Your task to perform on an android device: Open calendar and show me the third week of next month Image 0: 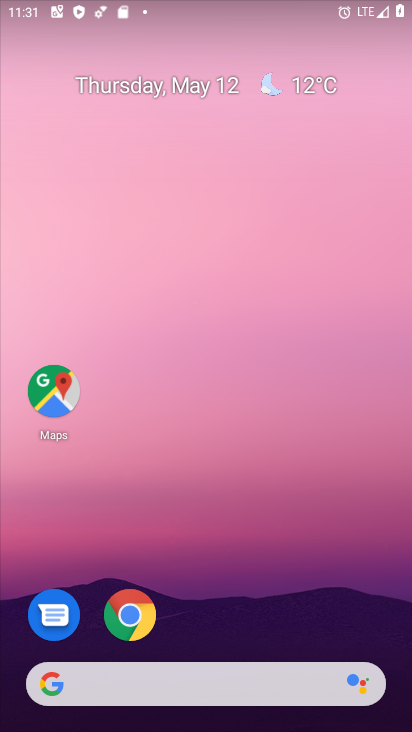
Step 0: drag from (192, 532) to (192, 101)
Your task to perform on an android device: Open calendar and show me the third week of next month Image 1: 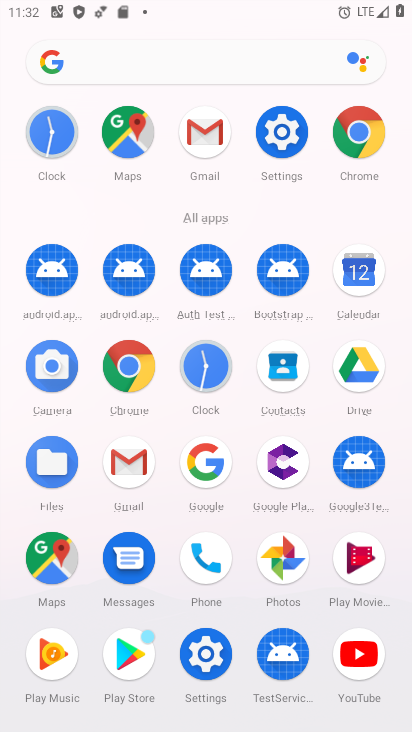
Step 1: click (353, 271)
Your task to perform on an android device: Open calendar and show me the third week of next month Image 2: 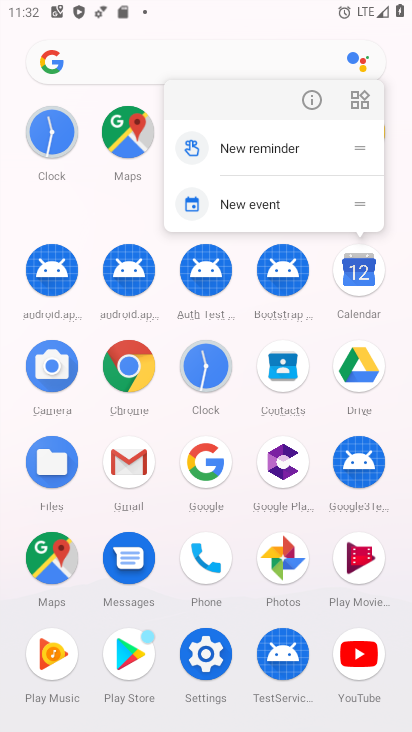
Step 2: click (358, 268)
Your task to perform on an android device: Open calendar and show me the third week of next month Image 3: 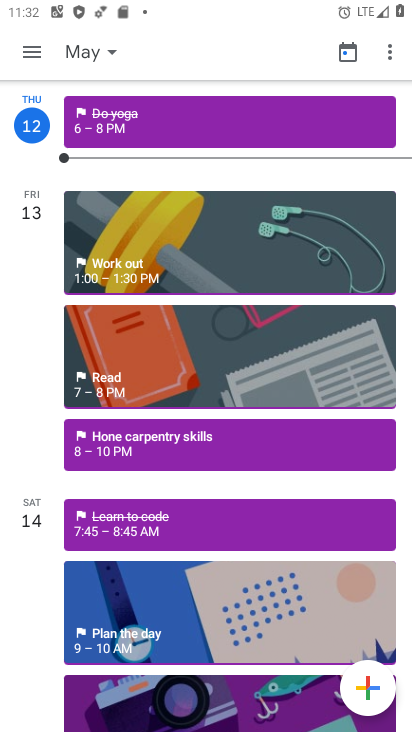
Step 3: click (24, 44)
Your task to perform on an android device: Open calendar and show me the third week of next month Image 4: 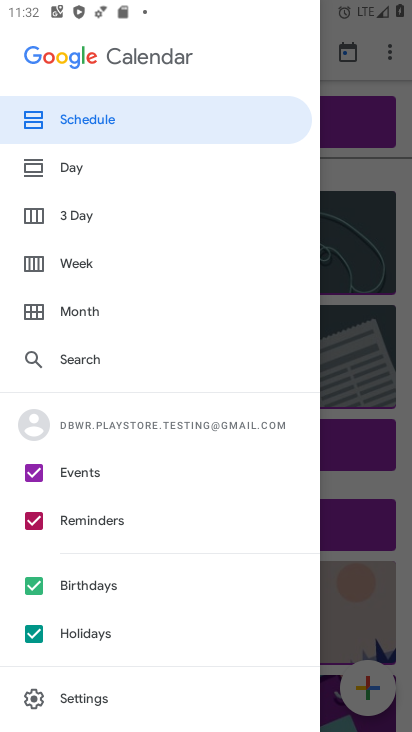
Step 4: click (63, 300)
Your task to perform on an android device: Open calendar and show me the third week of next month Image 5: 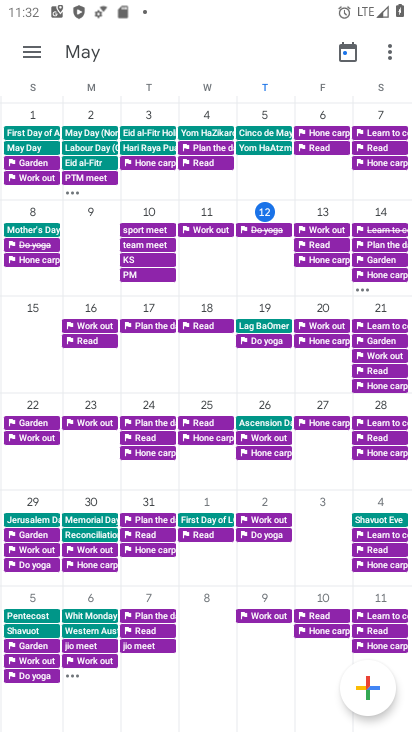
Step 5: drag from (369, 392) to (0, 413)
Your task to perform on an android device: Open calendar and show me the third week of next month Image 6: 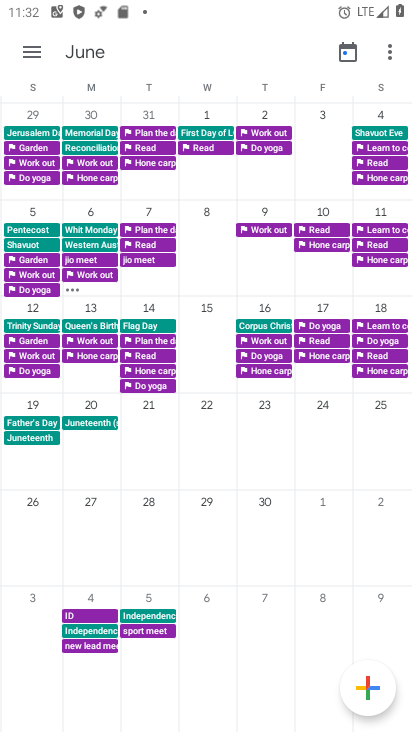
Step 6: click (27, 385)
Your task to perform on an android device: Open calendar and show me the third week of next month Image 7: 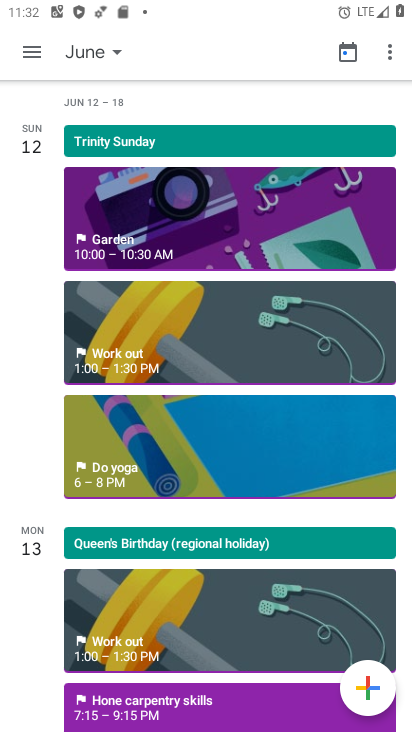
Step 7: click (35, 49)
Your task to perform on an android device: Open calendar and show me the third week of next month Image 8: 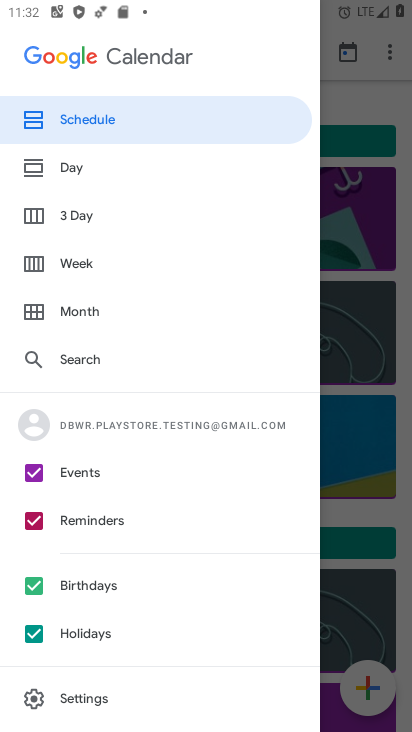
Step 8: click (74, 257)
Your task to perform on an android device: Open calendar and show me the third week of next month Image 9: 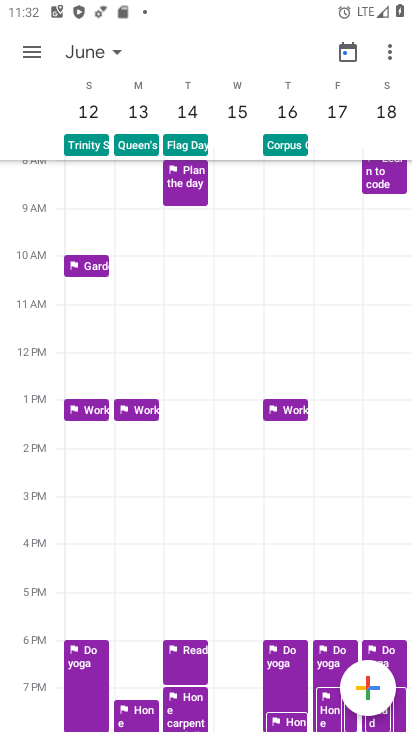
Step 9: task complete